Your task to perform on an android device: delete browsing data in the chrome app Image 0: 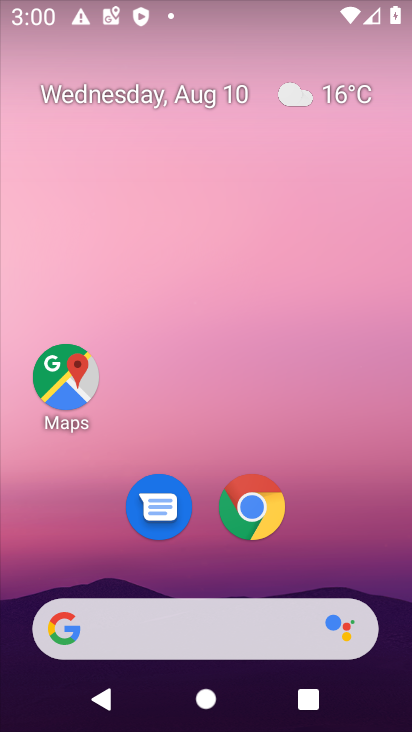
Step 0: drag from (334, 525) to (344, 27)
Your task to perform on an android device: delete browsing data in the chrome app Image 1: 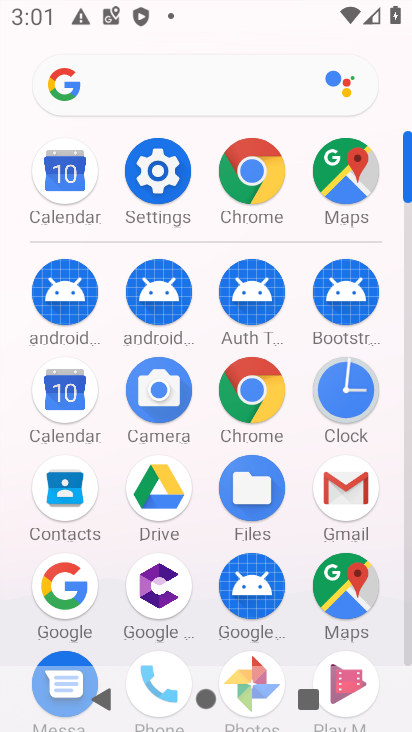
Step 1: click (255, 389)
Your task to perform on an android device: delete browsing data in the chrome app Image 2: 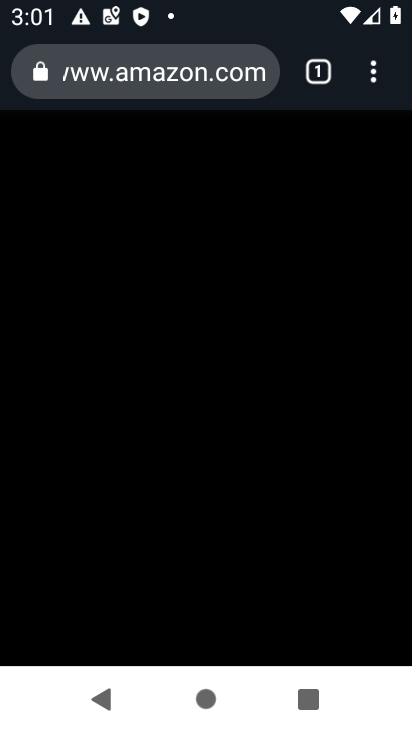
Step 2: drag from (376, 73) to (131, 393)
Your task to perform on an android device: delete browsing data in the chrome app Image 3: 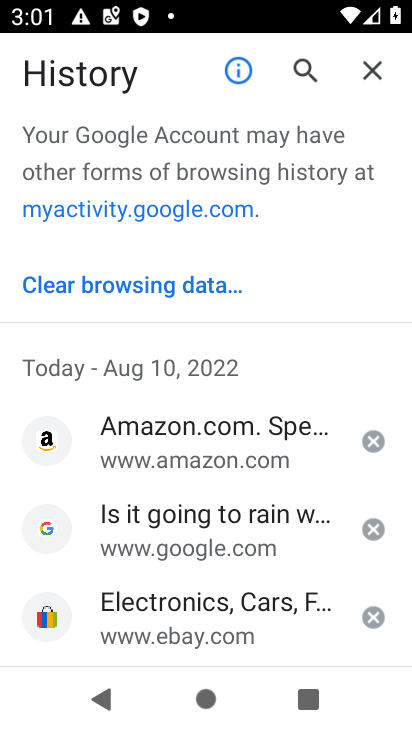
Step 3: click (128, 292)
Your task to perform on an android device: delete browsing data in the chrome app Image 4: 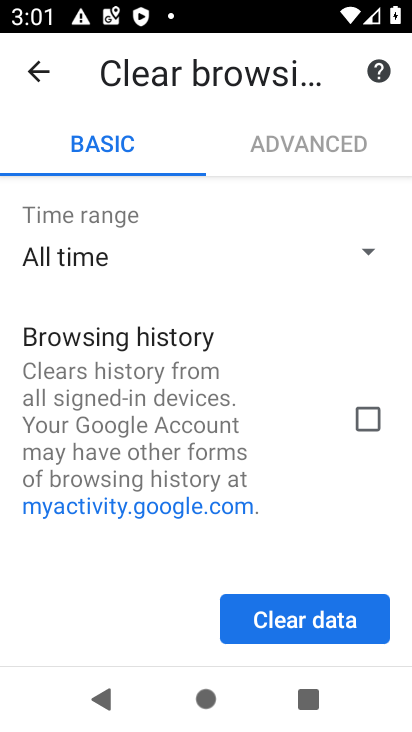
Step 4: click (371, 406)
Your task to perform on an android device: delete browsing data in the chrome app Image 5: 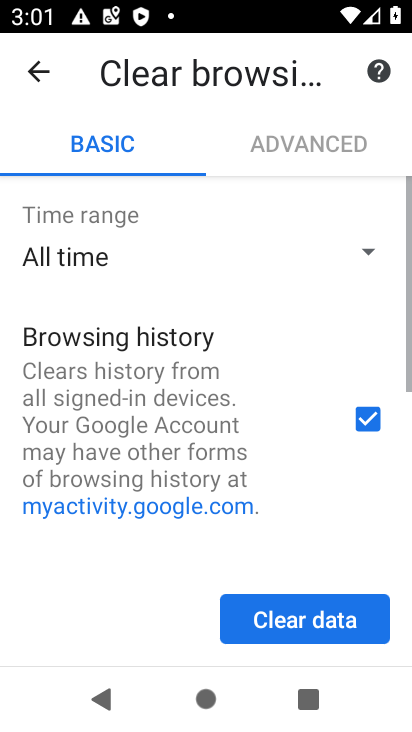
Step 5: drag from (257, 486) to (288, 154)
Your task to perform on an android device: delete browsing data in the chrome app Image 6: 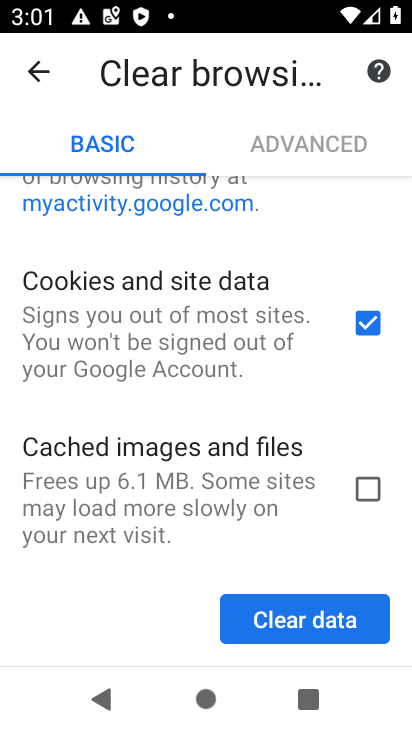
Step 6: click (368, 490)
Your task to perform on an android device: delete browsing data in the chrome app Image 7: 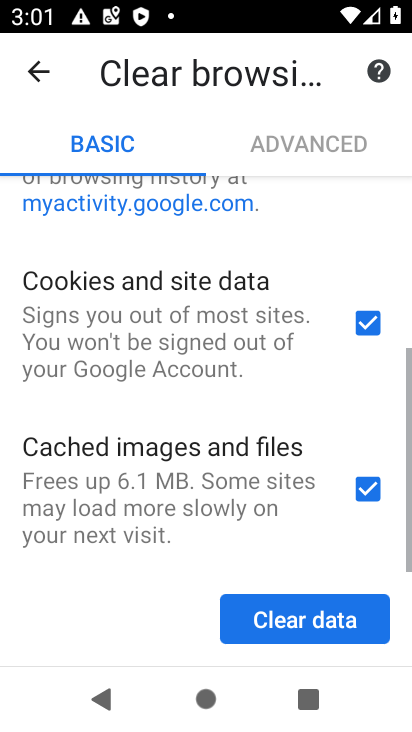
Step 7: drag from (178, 478) to (234, 84)
Your task to perform on an android device: delete browsing data in the chrome app Image 8: 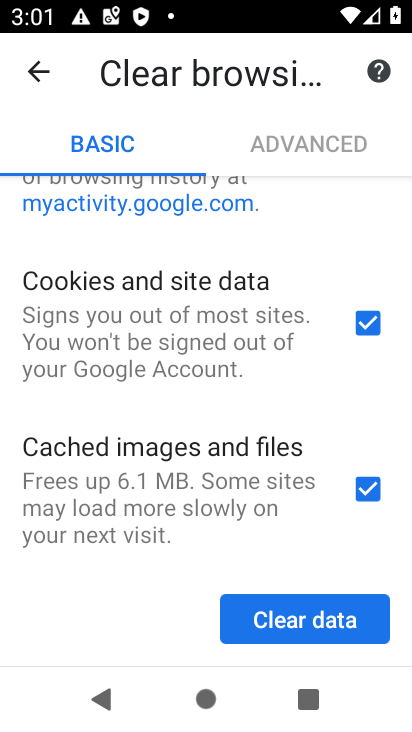
Step 8: drag from (205, 471) to (233, 119)
Your task to perform on an android device: delete browsing data in the chrome app Image 9: 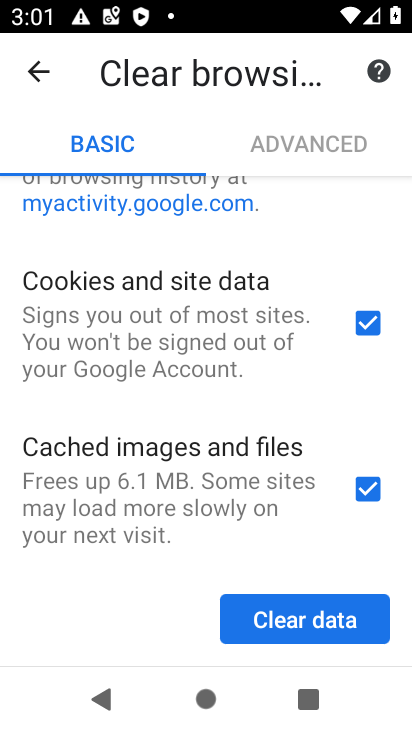
Step 9: drag from (200, 238) to (199, 508)
Your task to perform on an android device: delete browsing data in the chrome app Image 10: 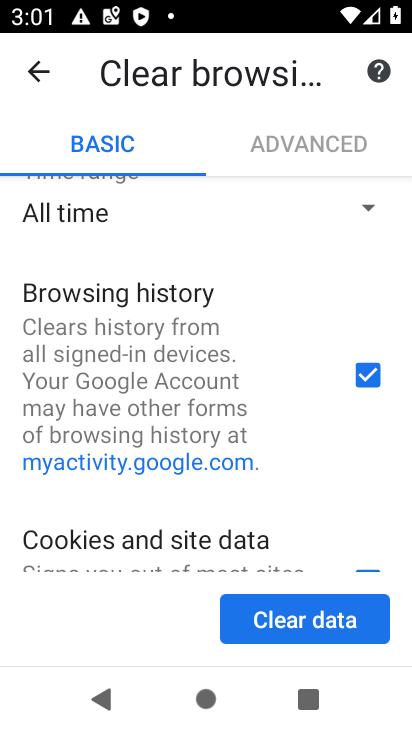
Step 10: click (304, 619)
Your task to perform on an android device: delete browsing data in the chrome app Image 11: 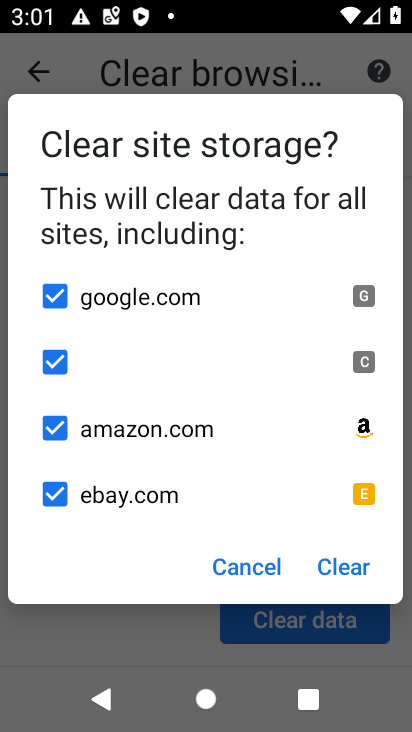
Step 11: click (341, 565)
Your task to perform on an android device: delete browsing data in the chrome app Image 12: 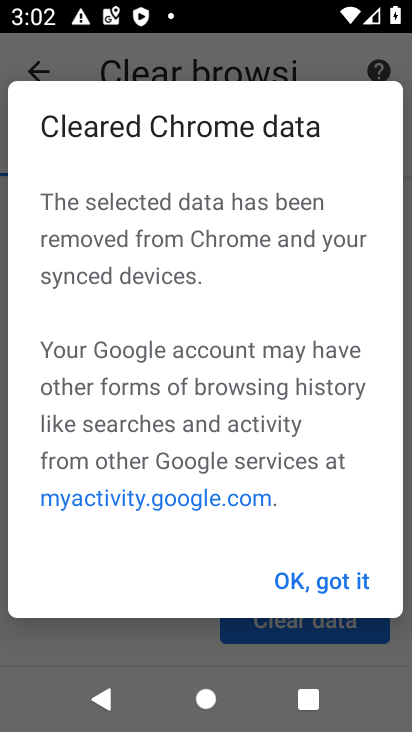
Step 12: click (306, 587)
Your task to perform on an android device: delete browsing data in the chrome app Image 13: 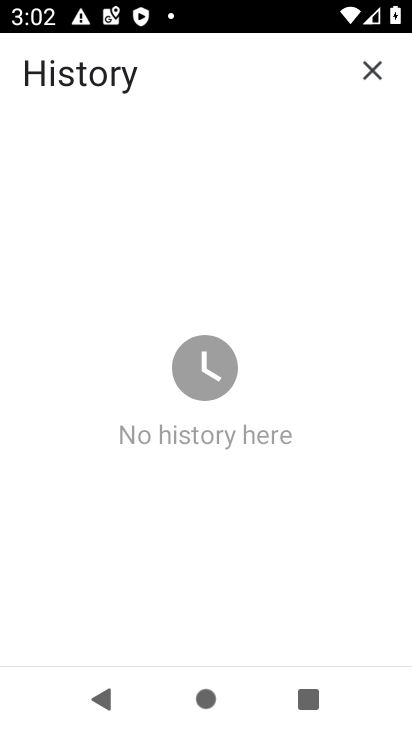
Step 13: task complete